Your task to perform on an android device: toggle show notifications on the lock screen Image 0: 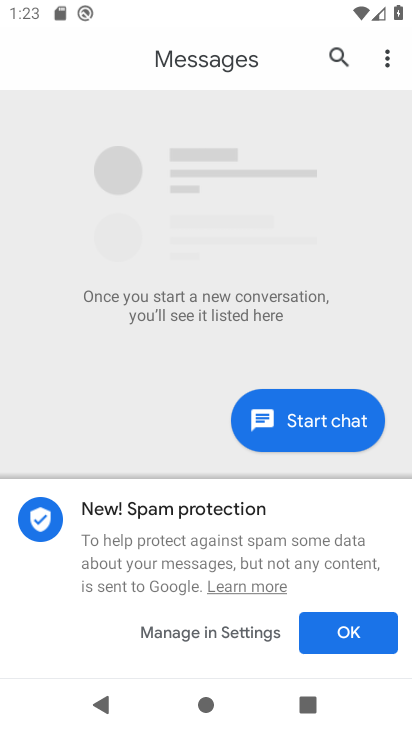
Step 0: press home button
Your task to perform on an android device: toggle show notifications on the lock screen Image 1: 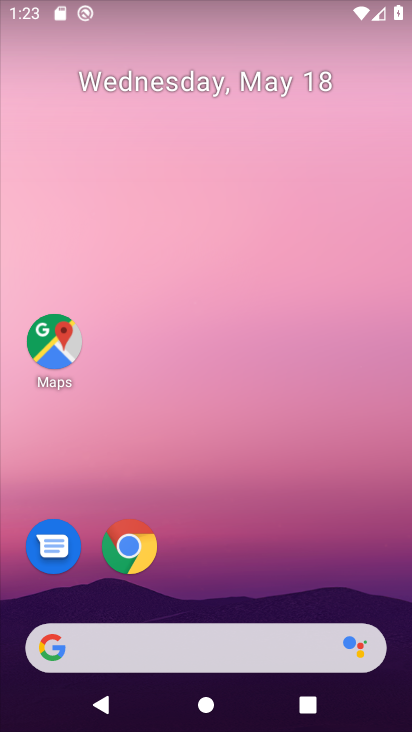
Step 1: drag from (176, 556) to (193, 159)
Your task to perform on an android device: toggle show notifications on the lock screen Image 2: 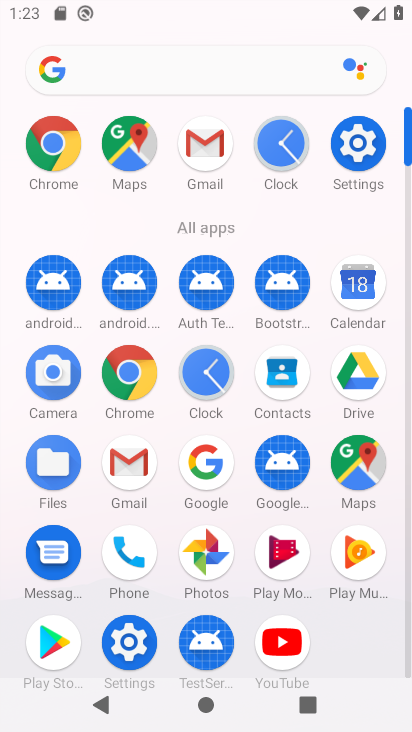
Step 2: click (128, 639)
Your task to perform on an android device: toggle show notifications on the lock screen Image 3: 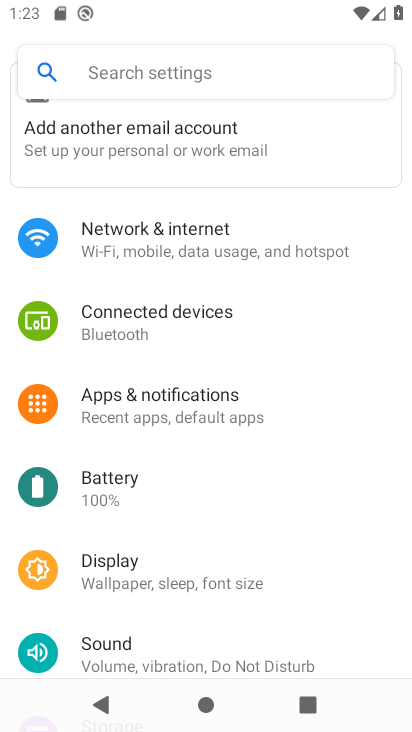
Step 3: click (219, 402)
Your task to perform on an android device: toggle show notifications on the lock screen Image 4: 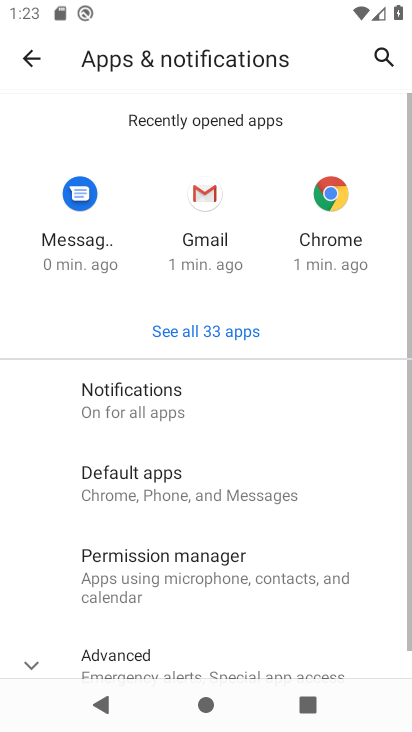
Step 4: click (142, 398)
Your task to perform on an android device: toggle show notifications on the lock screen Image 5: 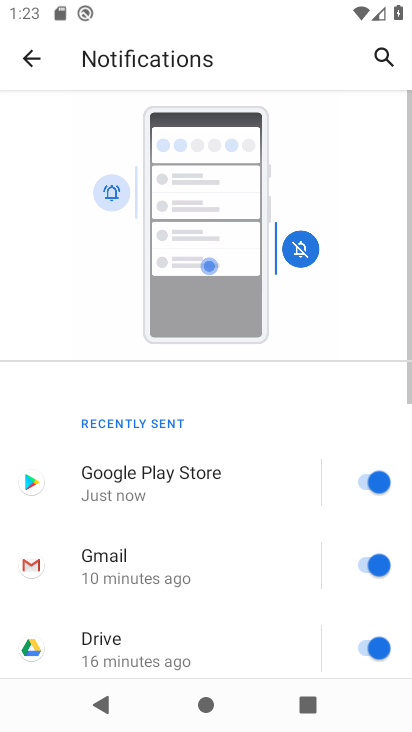
Step 5: drag from (175, 552) to (195, 154)
Your task to perform on an android device: toggle show notifications on the lock screen Image 6: 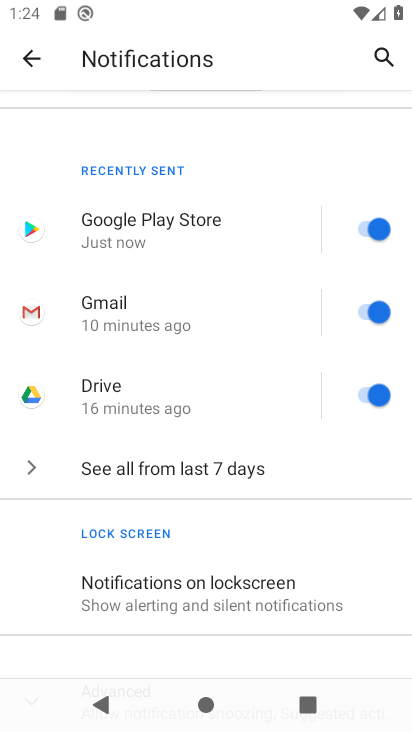
Step 6: drag from (138, 499) to (184, 189)
Your task to perform on an android device: toggle show notifications on the lock screen Image 7: 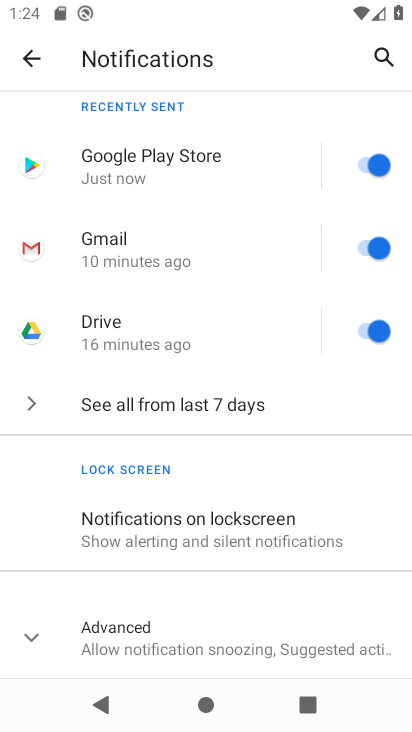
Step 7: click (34, 625)
Your task to perform on an android device: toggle show notifications on the lock screen Image 8: 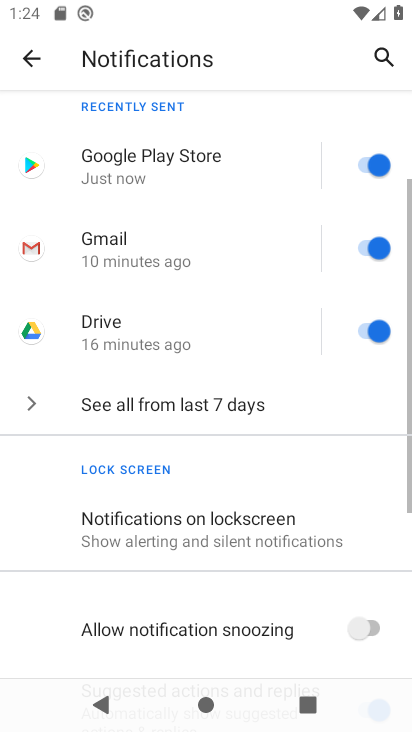
Step 8: click (44, 538)
Your task to perform on an android device: toggle show notifications on the lock screen Image 9: 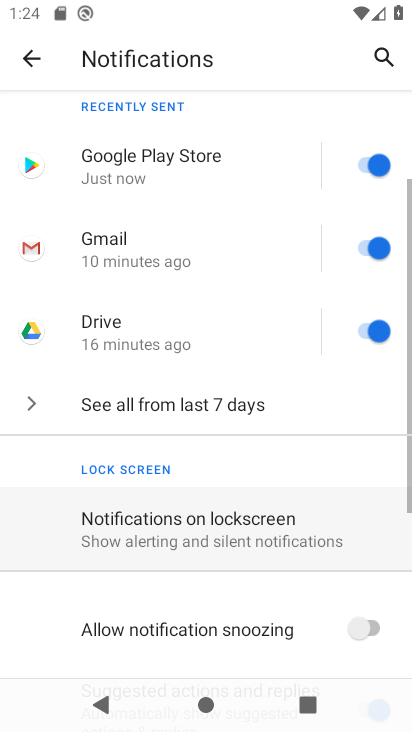
Step 9: click (109, 537)
Your task to perform on an android device: toggle show notifications on the lock screen Image 10: 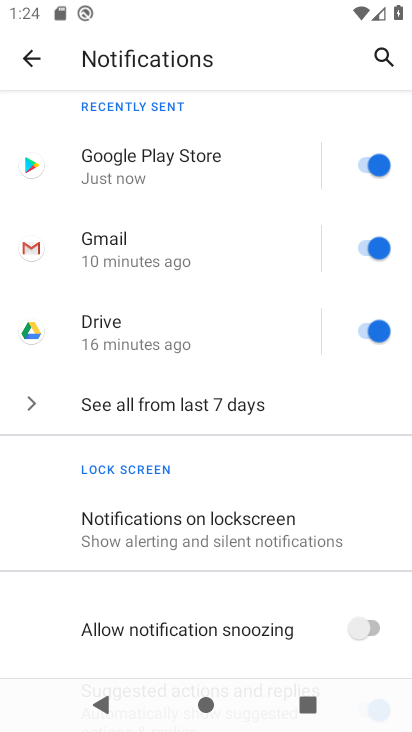
Step 10: click (176, 538)
Your task to perform on an android device: toggle show notifications on the lock screen Image 11: 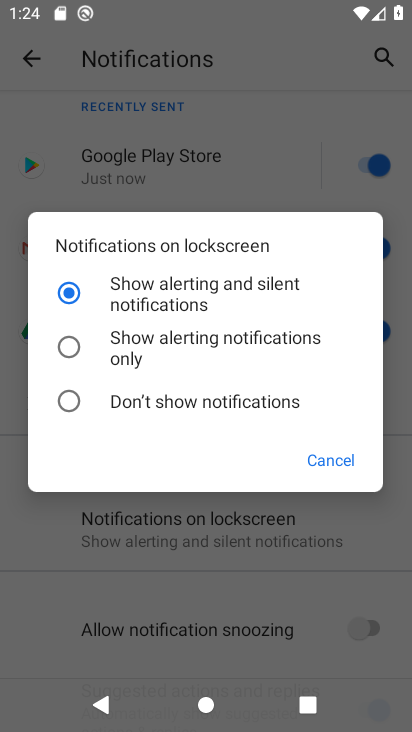
Step 11: task complete